Your task to perform on an android device: manage bookmarks in the chrome app Image 0: 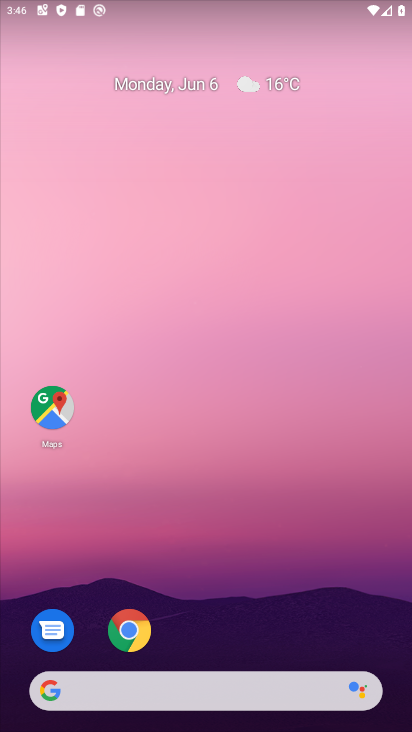
Step 0: click (132, 629)
Your task to perform on an android device: manage bookmarks in the chrome app Image 1: 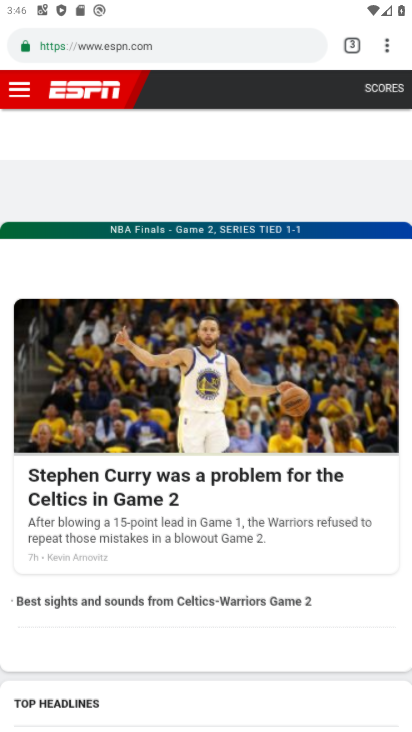
Step 1: drag from (384, 39) to (227, 171)
Your task to perform on an android device: manage bookmarks in the chrome app Image 2: 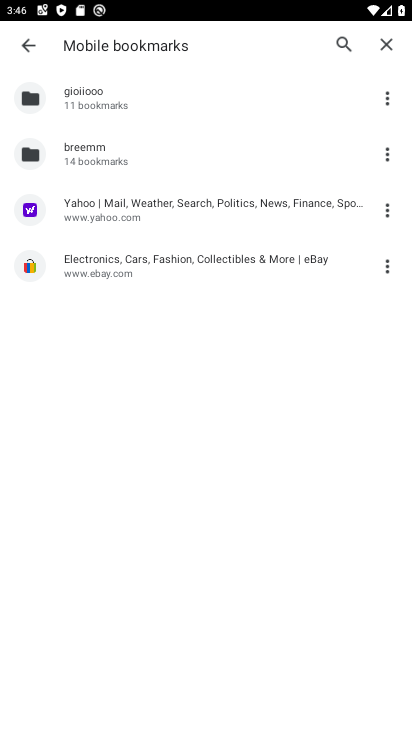
Step 2: click (368, 205)
Your task to perform on an android device: manage bookmarks in the chrome app Image 3: 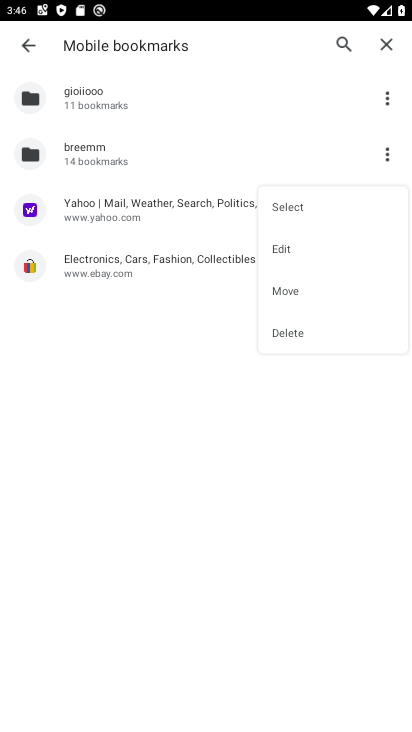
Step 3: click (284, 352)
Your task to perform on an android device: manage bookmarks in the chrome app Image 4: 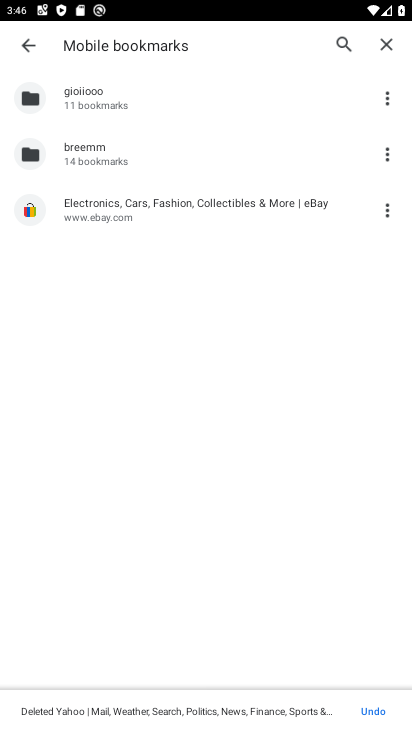
Step 4: task complete